Your task to perform on an android device: toggle pop-ups in chrome Image 0: 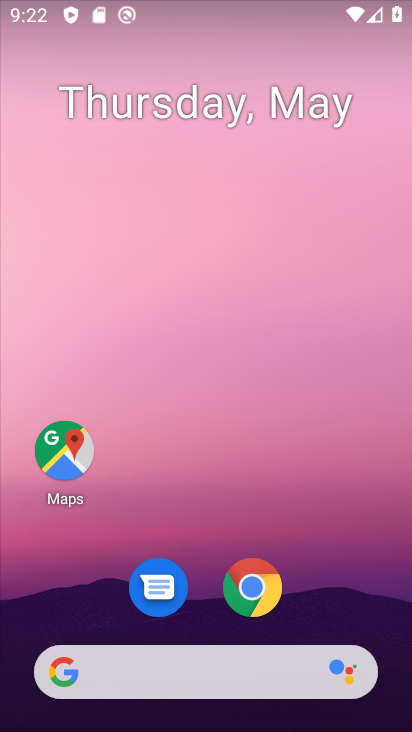
Step 0: click (253, 598)
Your task to perform on an android device: toggle pop-ups in chrome Image 1: 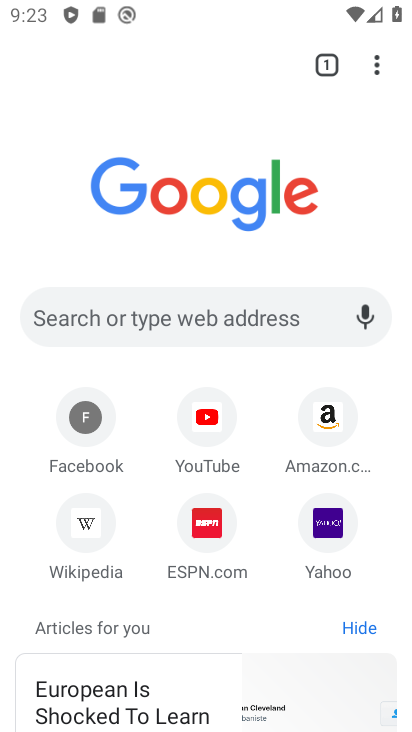
Step 1: click (375, 63)
Your task to perform on an android device: toggle pop-ups in chrome Image 2: 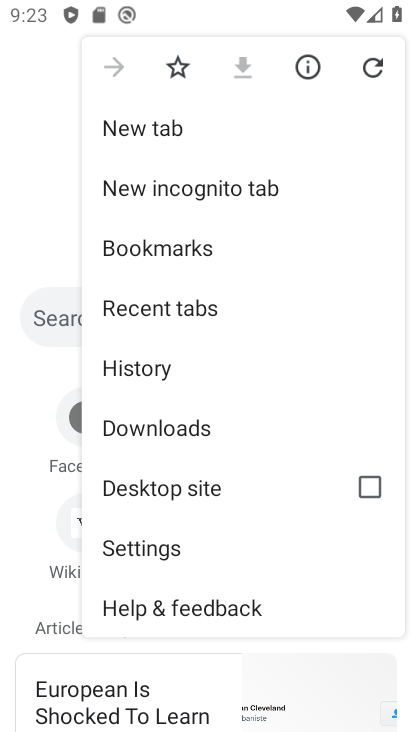
Step 2: click (151, 553)
Your task to perform on an android device: toggle pop-ups in chrome Image 3: 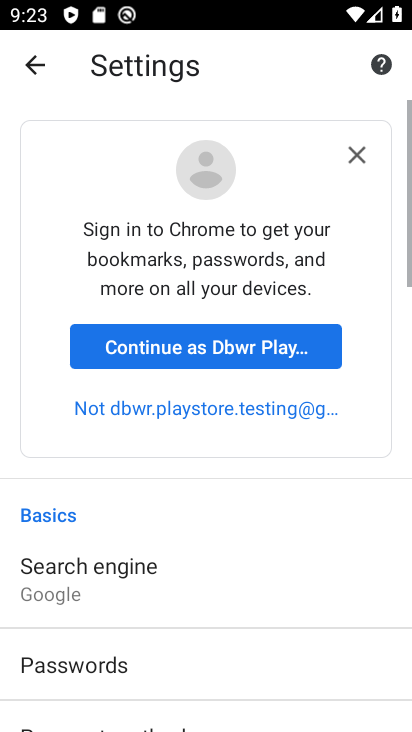
Step 3: drag from (201, 566) to (211, 76)
Your task to perform on an android device: toggle pop-ups in chrome Image 4: 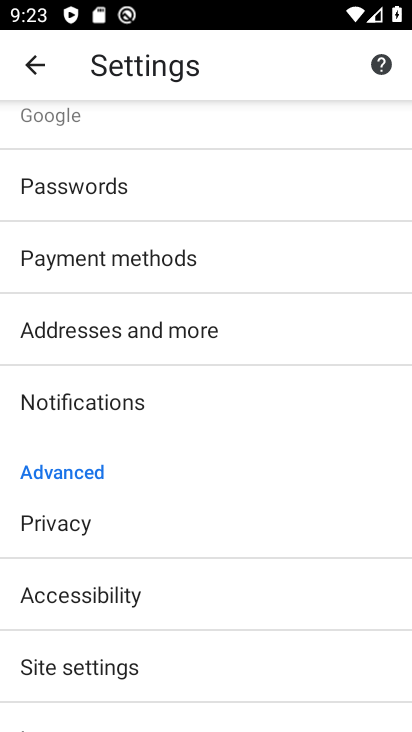
Step 4: click (107, 666)
Your task to perform on an android device: toggle pop-ups in chrome Image 5: 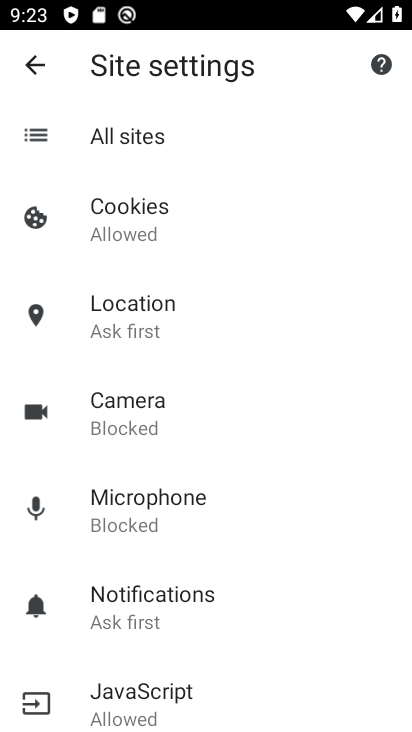
Step 5: drag from (252, 620) to (262, 375)
Your task to perform on an android device: toggle pop-ups in chrome Image 6: 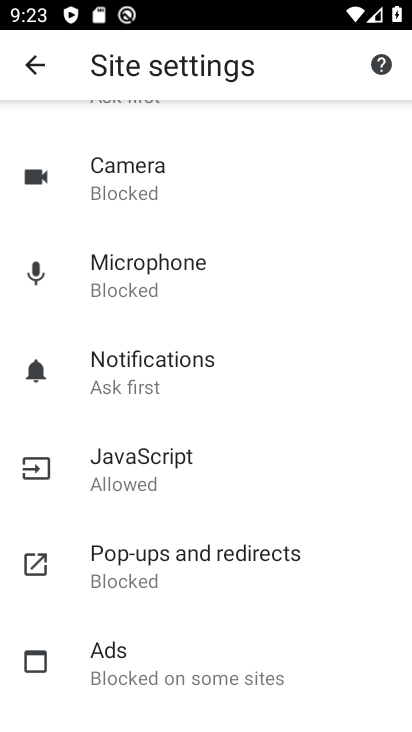
Step 6: click (124, 556)
Your task to perform on an android device: toggle pop-ups in chrome Image 7: 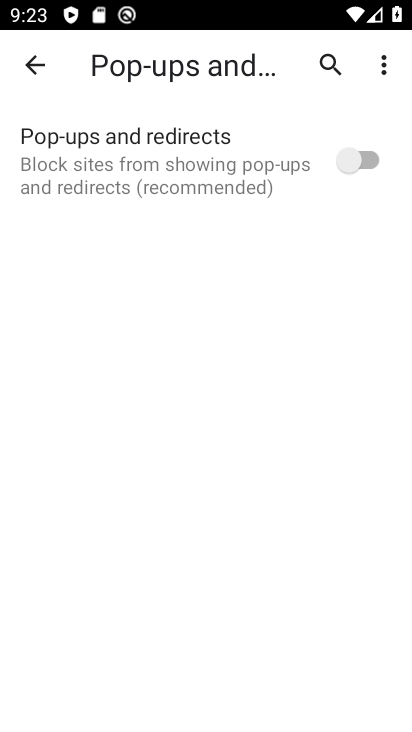
Step 7: click (339, 167)
Your task to perform on an android device: toggle pop-ups in chrome Image 8: 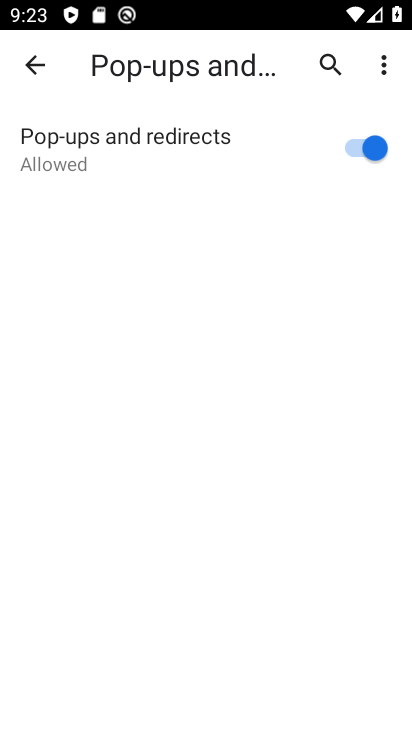
Step 8: task complete